Your task to perform on an android device: Toggle the flashlight Image 0: 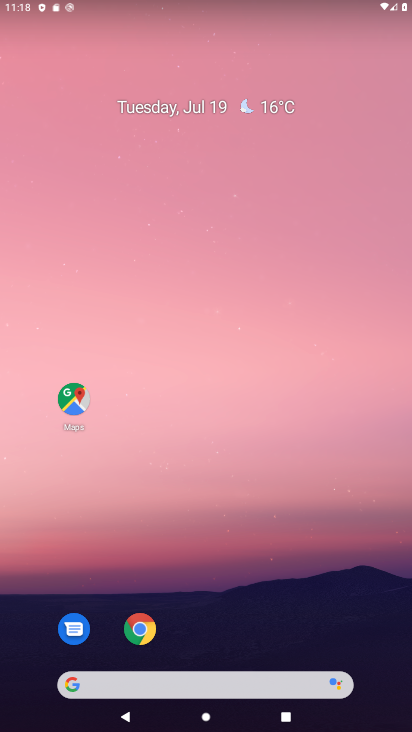
Step 0: drag from (392, 642) to (336, 105)
Your task to perform on an android device: Toggle the flashlight Image 1: 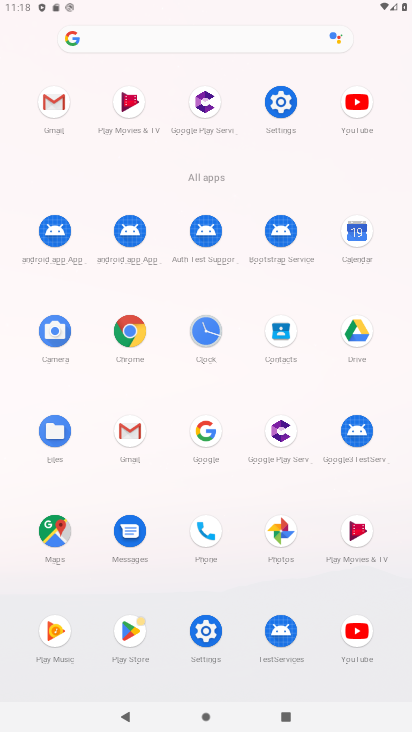
Step 1: click (291, 102)
Your task to perform on an android device: Toggle the flashlight Image 2: 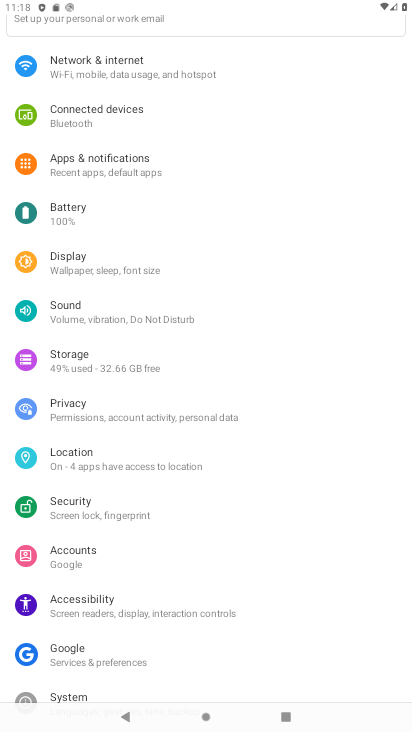
Step 2: click (74, 261)
Your task to perform on an android device: Toggle the flashlight Image 3: 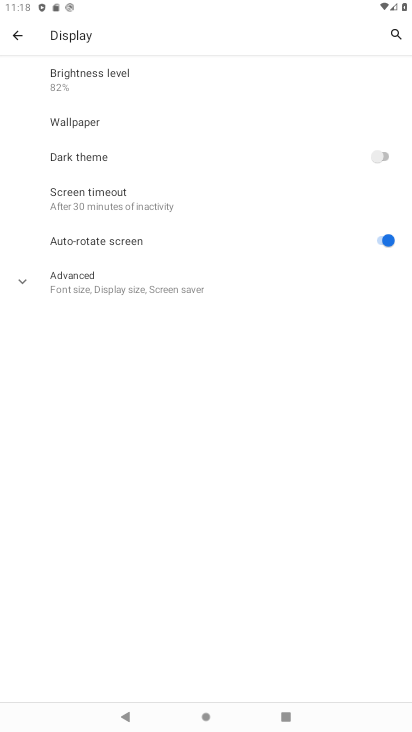
Step 3: click (68, 191)
Your task to perform on an android device: Toggle the flashlight Image 4: 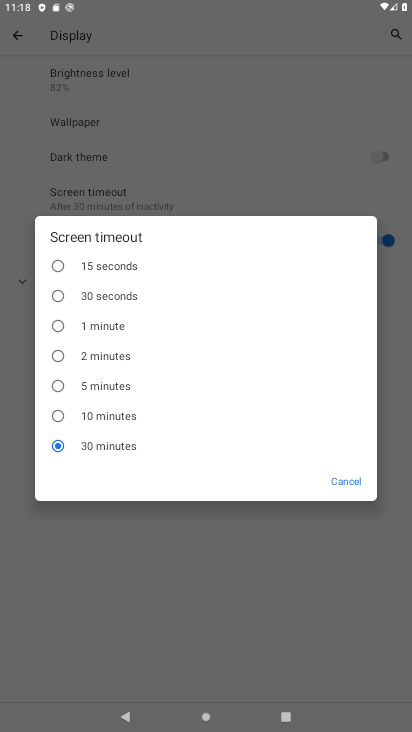
Step 4: task complete